Your task to perform on an android device: star an email in the gmail app Image 0: 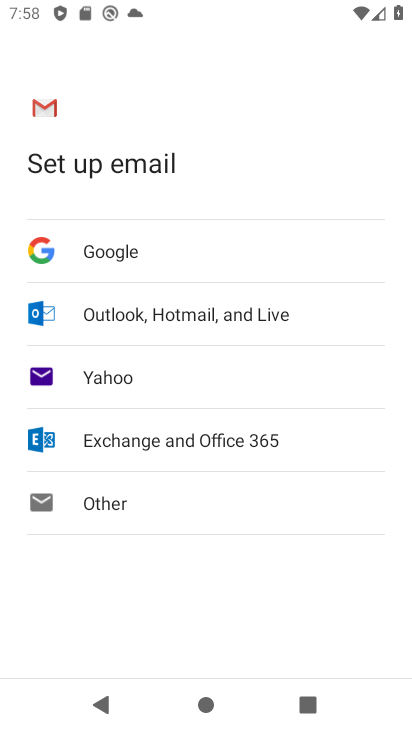
Step 0: press back button
Your task to perform on an android device: star an email in the gmail app Image 1: 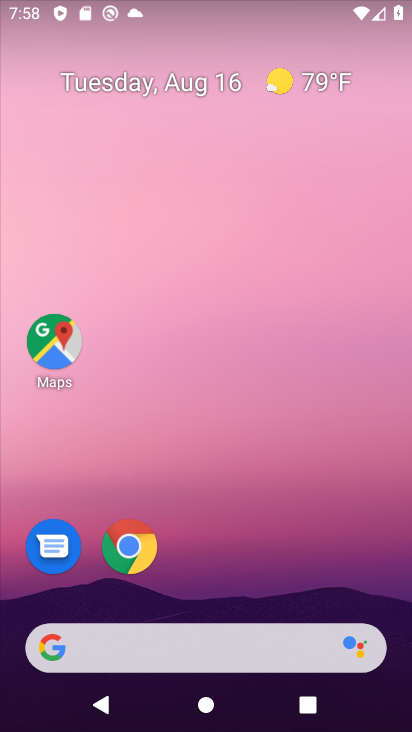
Step 1: drag from (204, 482) to (186, 211)
Your task to perform on an android device: star an email in the gmail app Image 2: 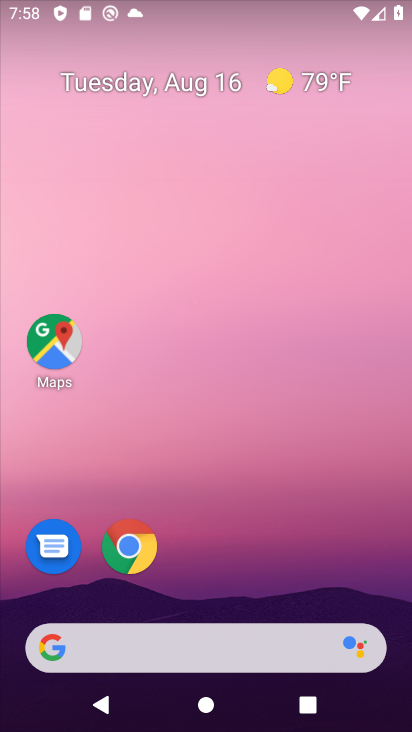
Step 2: drag from (206, 387) to (206, 71)
Your task to perform on an android device: star an email in the gmail app Image 3: 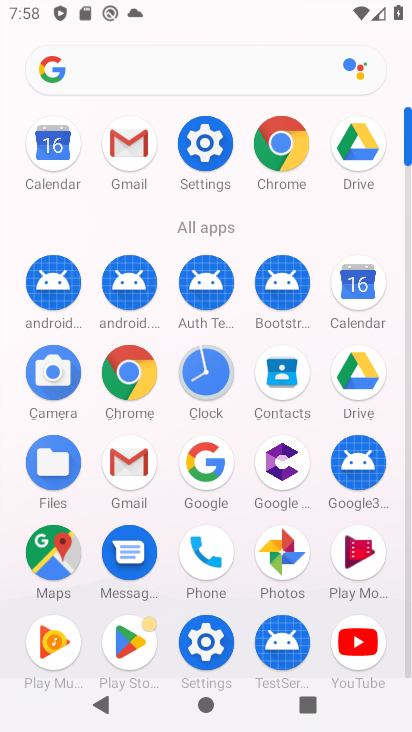
Step 3: click (121, 159)
Your task to perform on an android device: star an email in the gmail app Image 4: 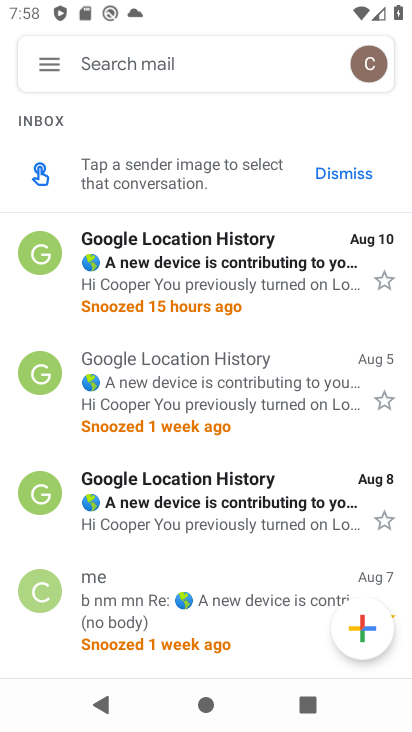
Step 4: click (380, 280)
Your task to perform on an android device: star an email in the gmail app Image 5: 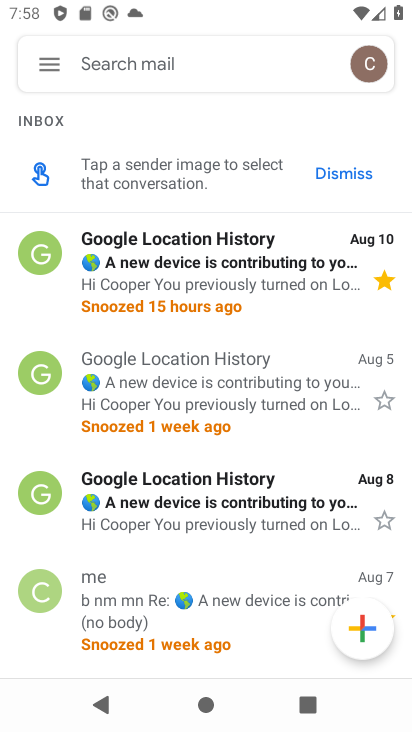
Step 5: task complete